Your task to perform on an android device: see creations saved in the google photos Image 0: 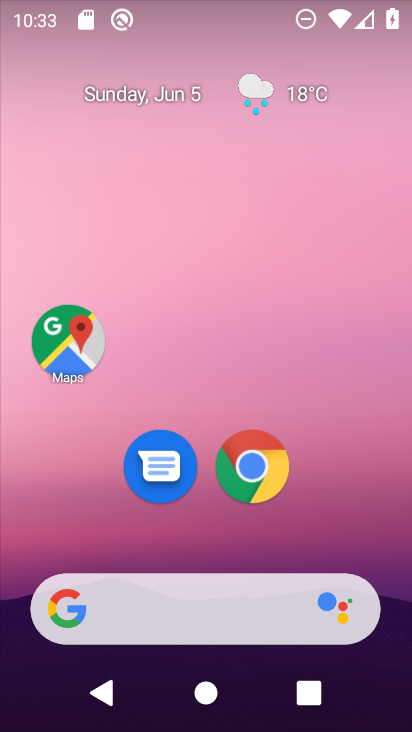
Step 0: drag from (340, 525) to (241, 19)
Your task to perform on an android device: see creations saved in the google photos Image 1: 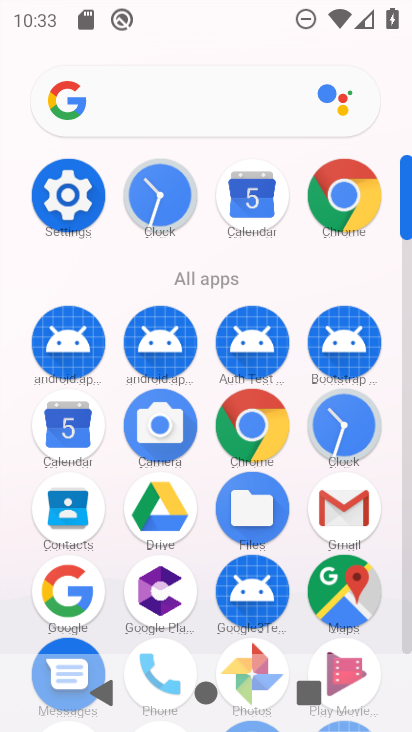
Step 1: drag from (7, 565) to (8, 291)
Your task to perform on an android device: see creations saved in the google photos Image 2: 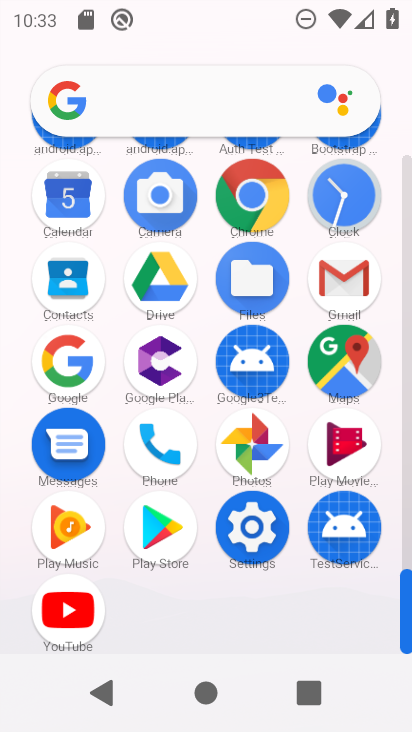
Step 2: click (251, 442)
Your task to perform on an android device: see creations saved in the google photos Image 3: 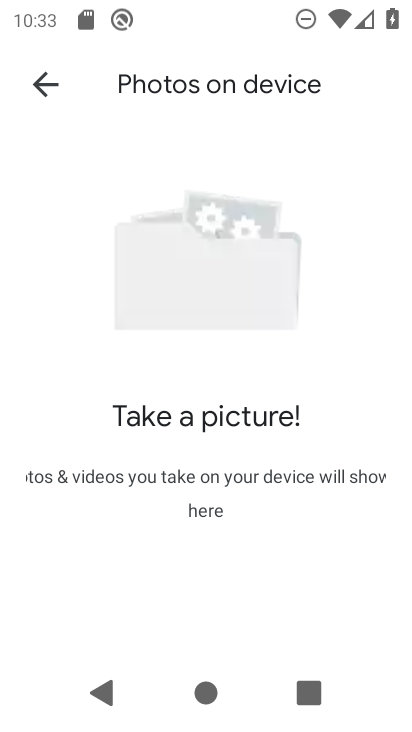
Step 3: click (50, 80)
Your task to perform on an android device: see creations saved in the google photos Image 4: 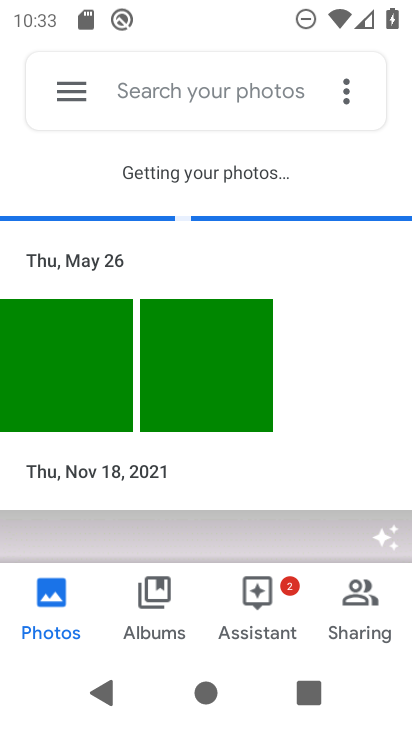
Step 4: task complete